Your task to perform on an android device: Check out the top rated books on Goodreads. Image 0: 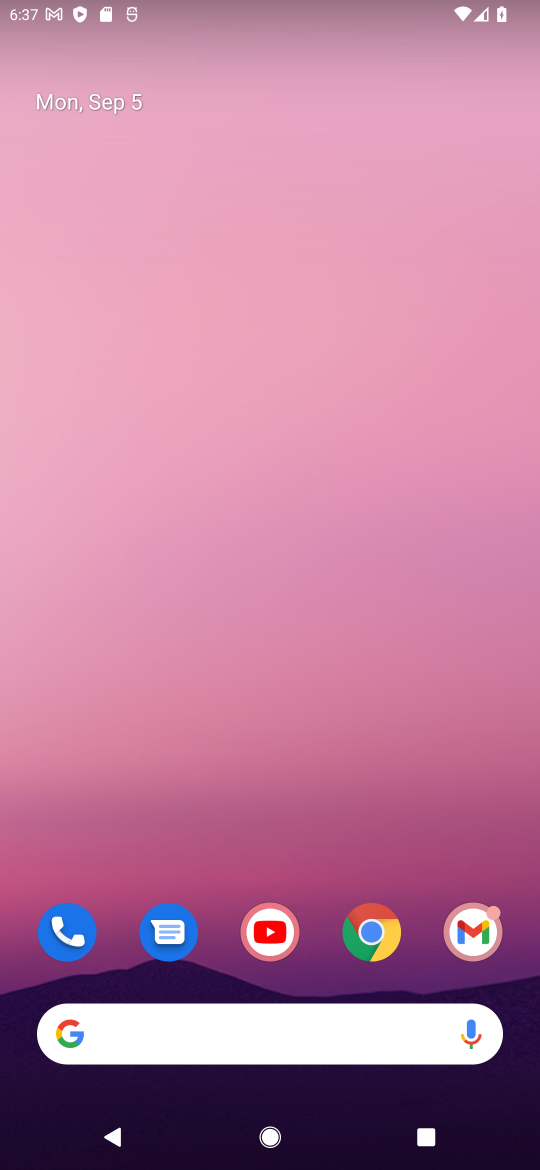
Step 0: drag from (325, 997) to (358, 0)
Your task to perform on an android device: Check out the top rated books on Goodreads. Image 1: 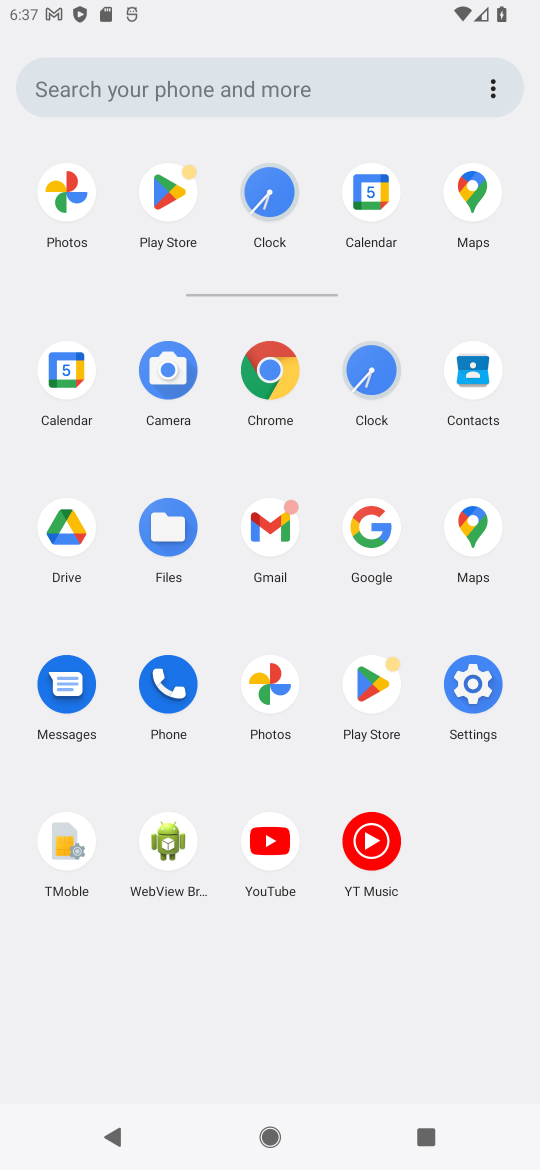
Step 1: click (376, 536)
Your task to perform on an android device: Check out the top rated books on Goodreads. Image 2: 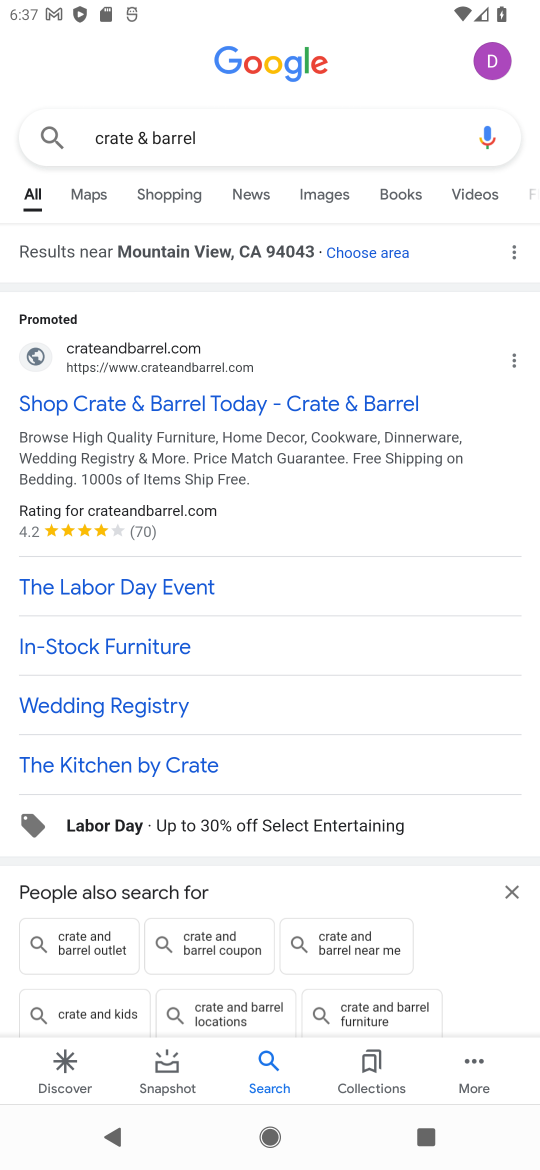
Step 2: click (329, 145)
Your task to perform on an android device: Check out the top rated books on Goodreads. Image 3: 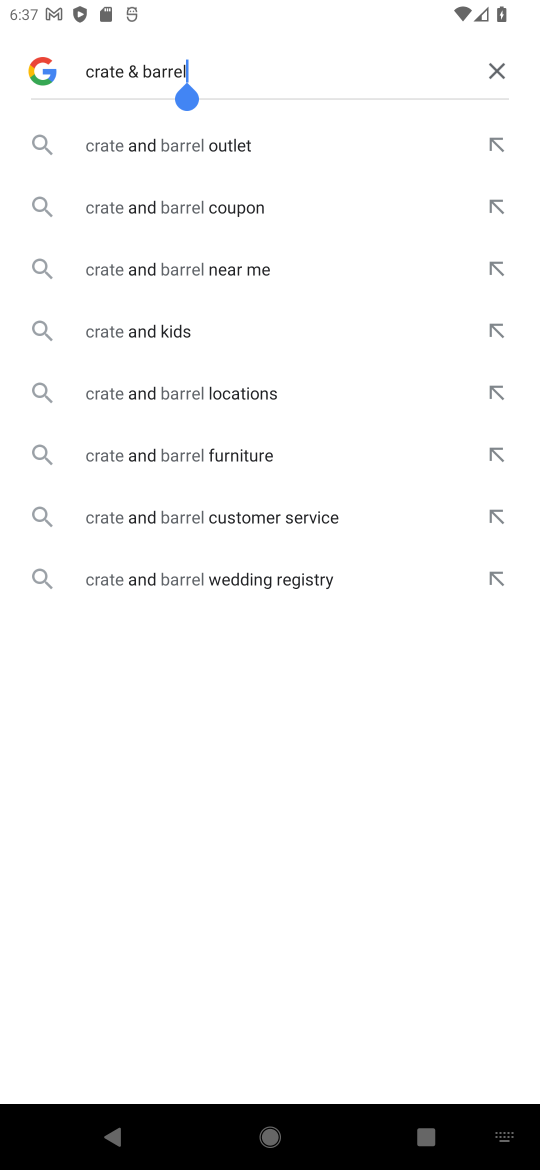
Step 3: click (500, 70)
Your task to perform on an android device: Check out the top rated books on Goodreads. Image 4: 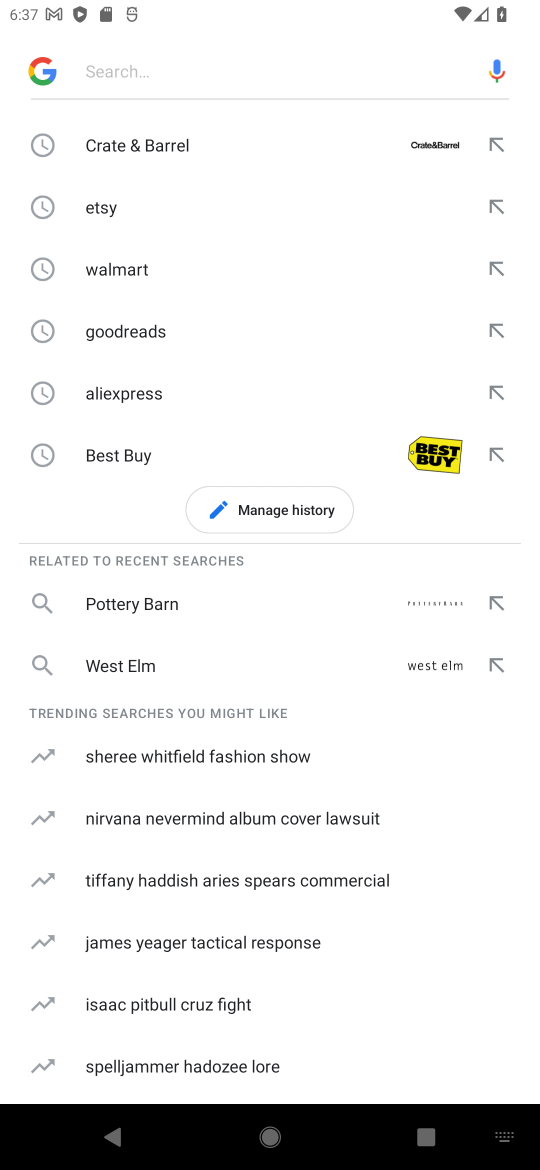
Step 4: type "Goodreads"
Your task to perform on an android device: Check out the top rated books on Goodreads. Image 5: 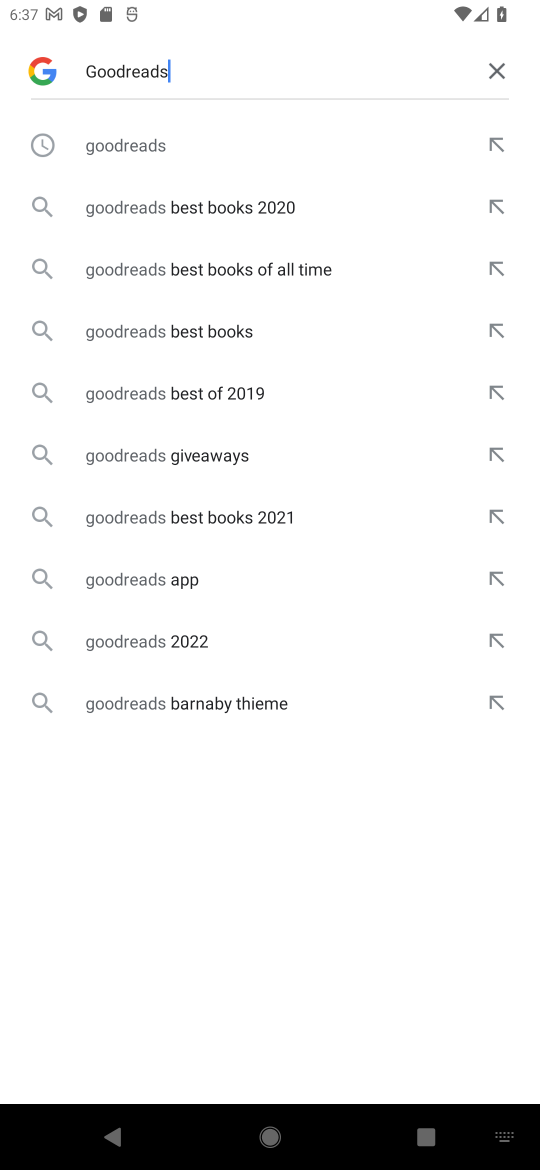
Step 5: click (139, 145)
Your task to perform on an android device: Check out the top rated books on Goodreads. Image 6: 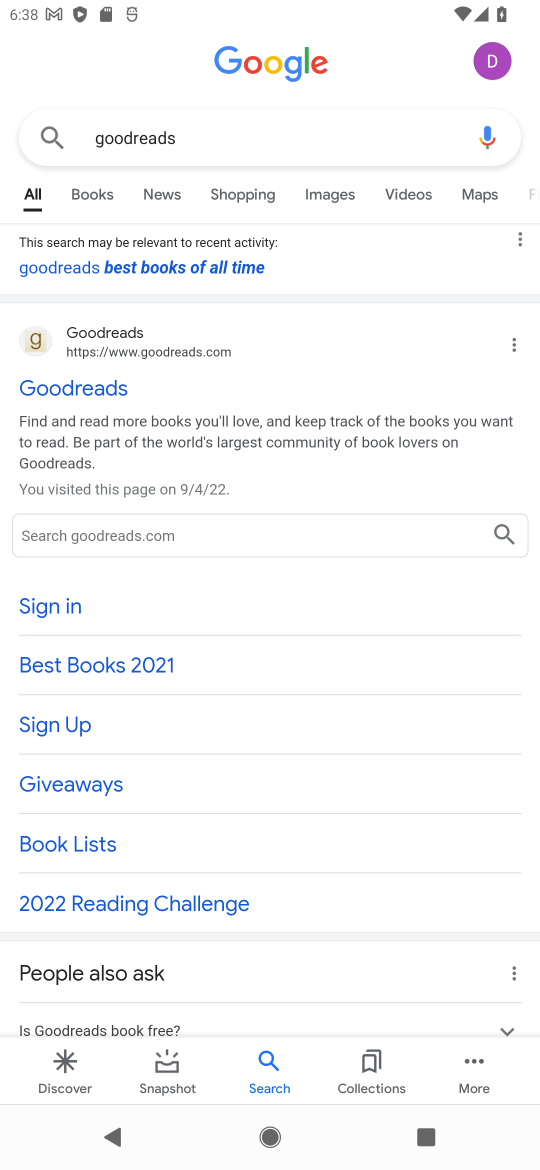
Step 6: click (66, 389)
Your task to perform on an android device: Check out the top rated books on Goodreads. Image 7: 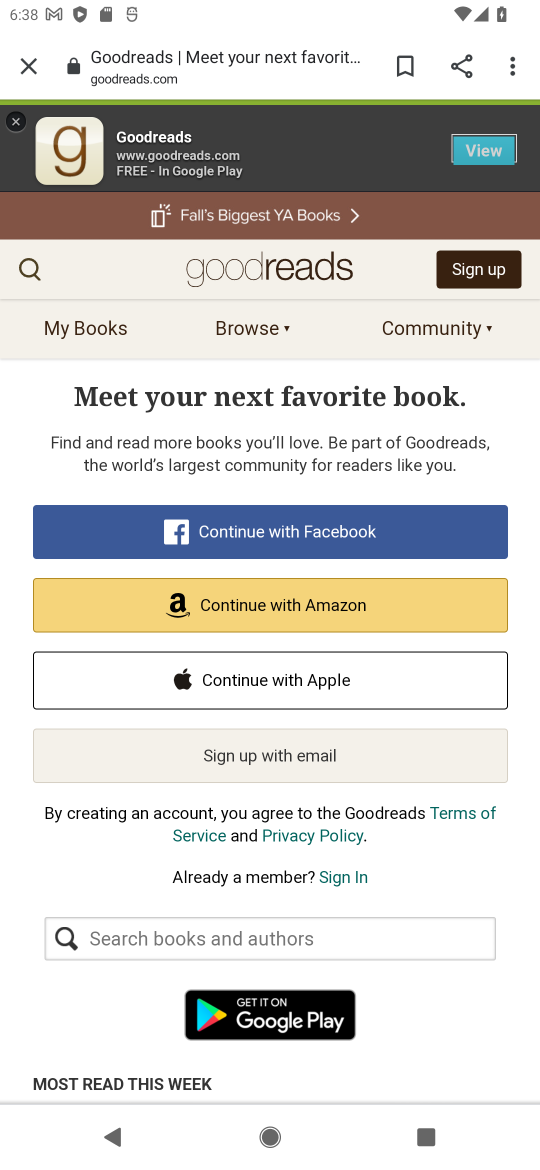
Step 7: click (31, 270)
Your task to perform on an android device: Check out the top rated books on Goodreads. Image 8: 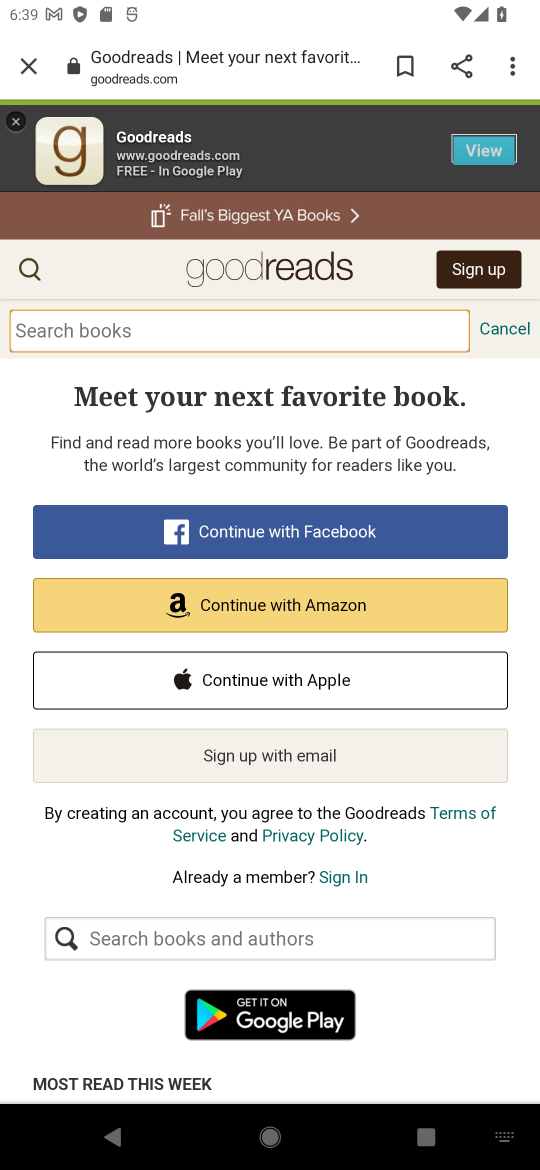
Step 8: click (231, 327)
Your task to perform on an android device: Check out the top rated books on Goodreads. Image 9: 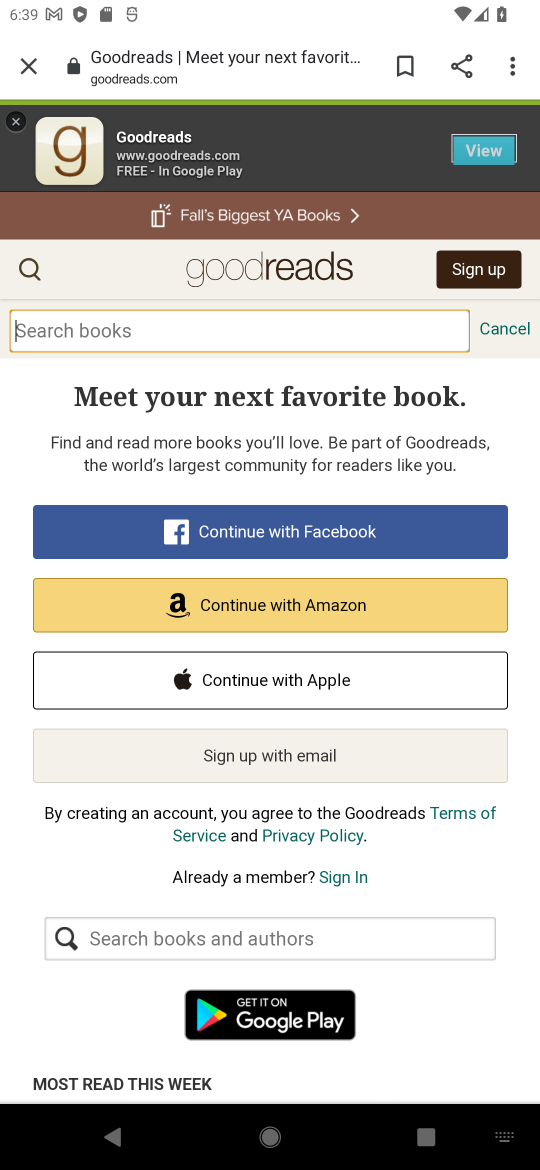
Step 9: type "books"
Your task to perform on an android device: Check out the top rated books on Goodreads. Image 10: 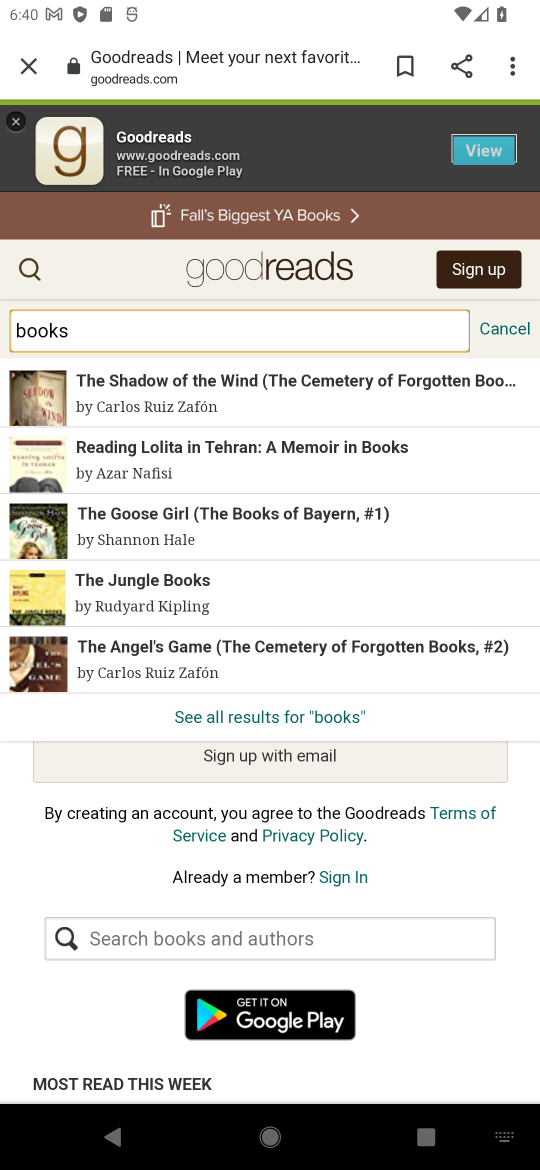
Step 10: task complete